Your task to perform on an android device: Open network settings Image 0: 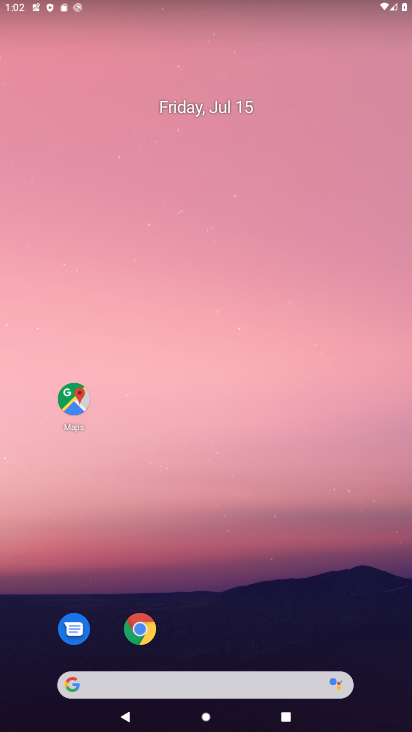
Step 0: drag from (355, 589) to (312, 6)
Your task to perform on an android device: Open network settings Image 1: 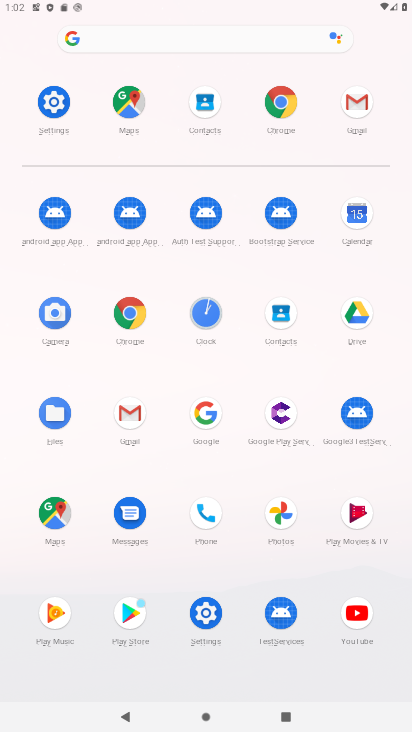
Step 1: click (51, 102)
Your task to perform on an android device: Open network settings Image 2: 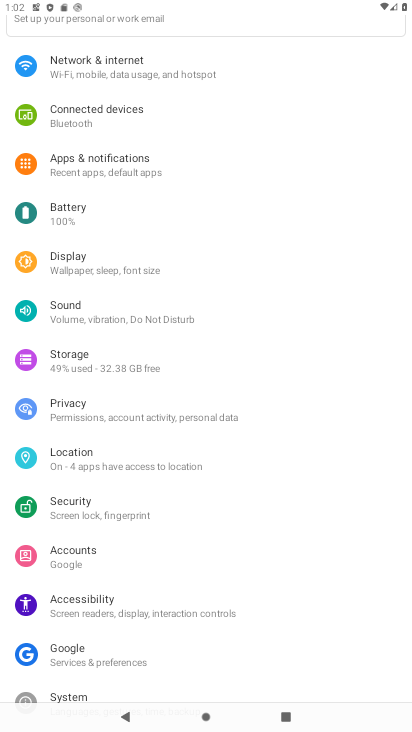
Step 2: click (153, 76)
Your task to perform on an android device: Open network settings Image 3: 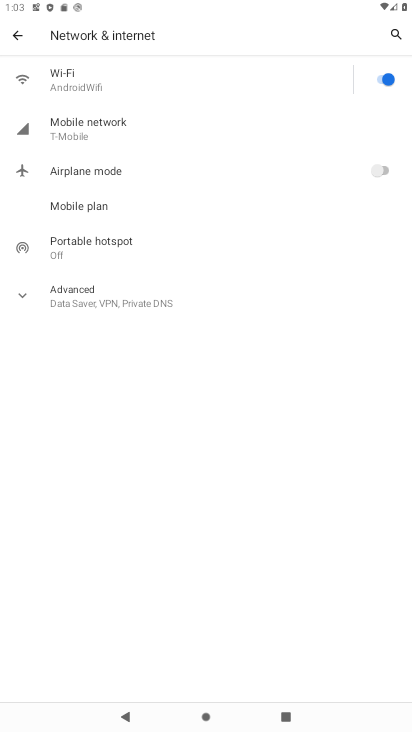
Step 3: click (75, 298)
Your task to perform on an android device: Open network settings Image 4: 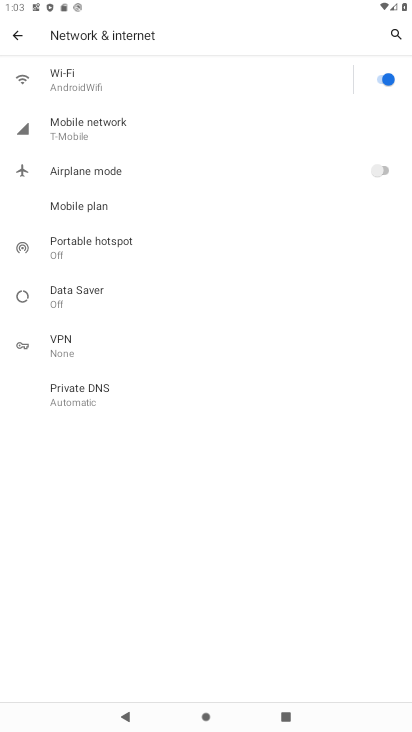
Step 4: task complete